Your task to perform on an android device: change the clock display to analog Image 0: 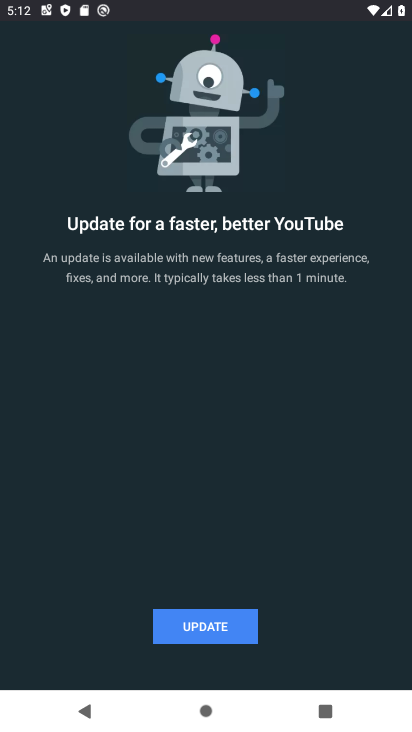
Step 0: press home button
Your task to perform on an android device: change the clock display to analog Image 1: 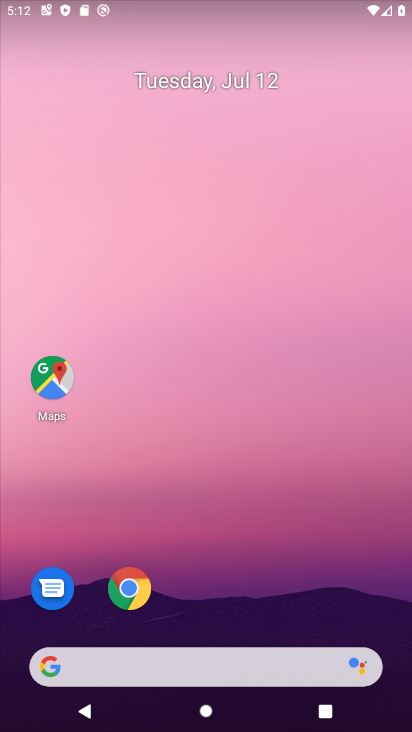
Step 1: drag from (358, 504) to (410, 176)
Your task to perform on an android device: change the clock display to analog Image 2: 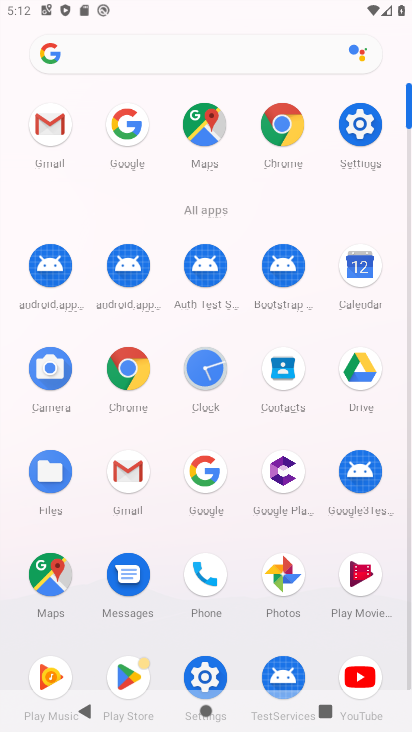
Step 2: click (196, 370)
Your task to perform on an android device: change the clock display to analog Image 3: 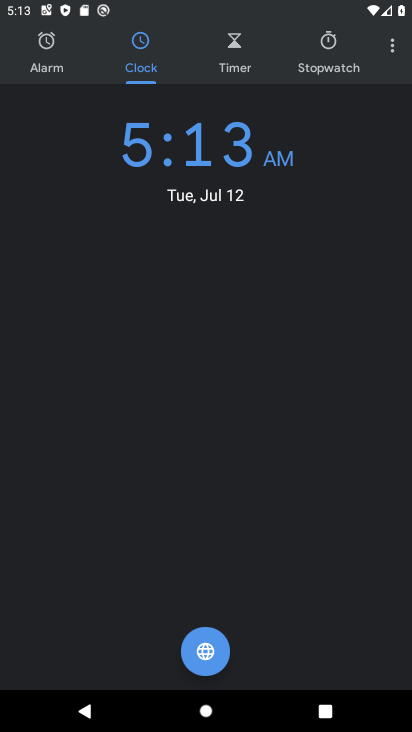
Step 3: click (387, 42)
Your task to perform on an android device: change the clock display to analog Image 4: 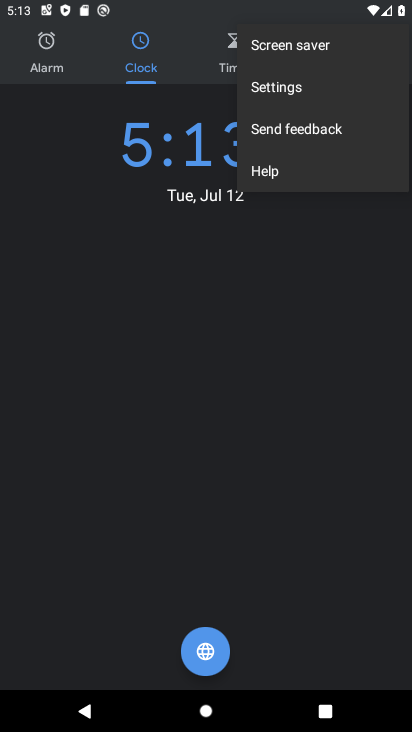
Step 4: click (299, 94)
Your task to perform on an android device: change the clock display to analog Image 5: 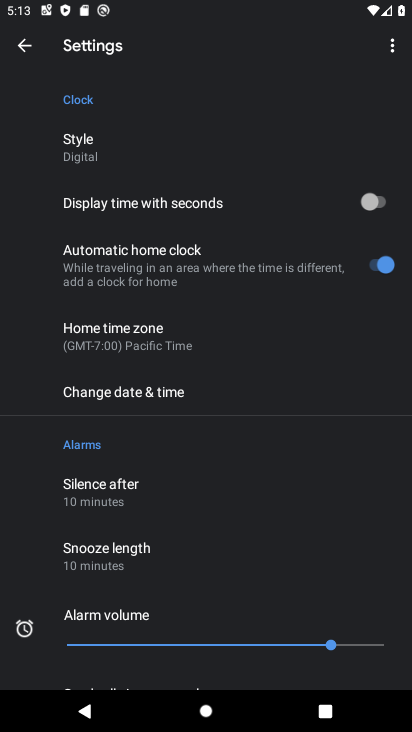
Step 5: click (99, 144)
Your task to perform on an android device: change the clock display to analog Image 6: 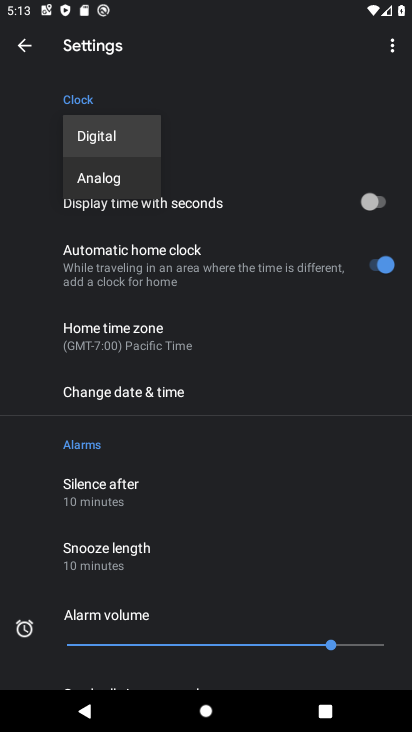
Step 6: click (83, 172)
Your task to perform on an android device: change the clock display to analog Image 7: 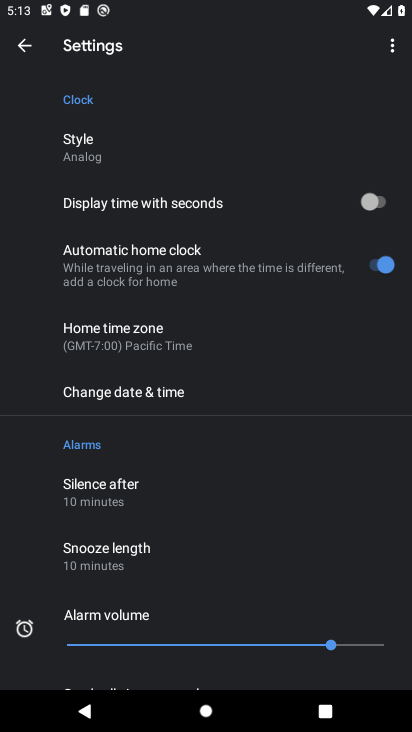
Step 7: task complete